Your task to perform on an android device: Check the news Image 0: 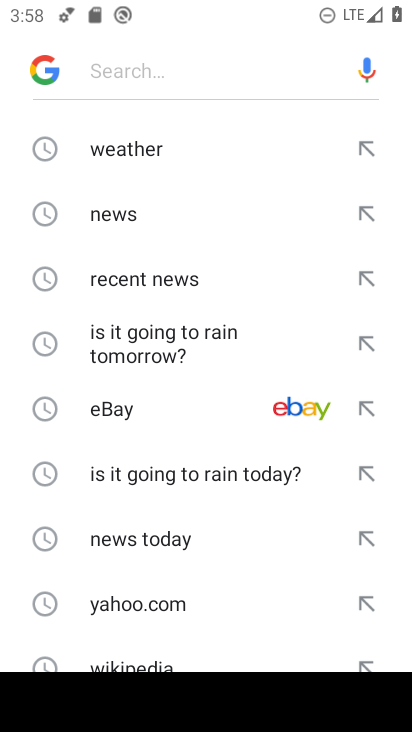
Step 0: press home button
Your task to perform on an android device: Check the news Image 1: 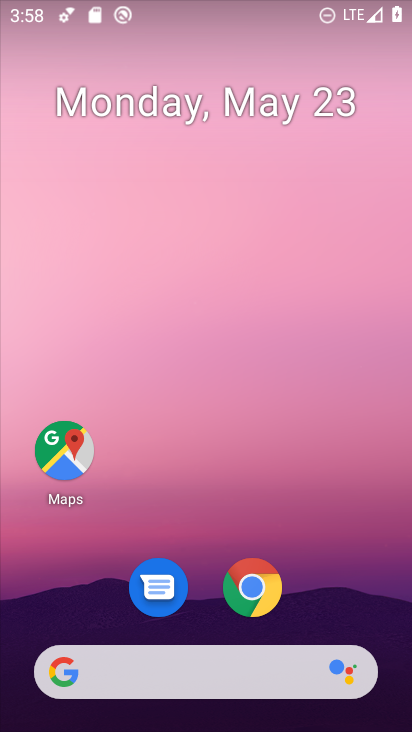
Step 1: drag from (210, 596) to (185, 5)
Your task to perform on an android device: Check the news Image 2: 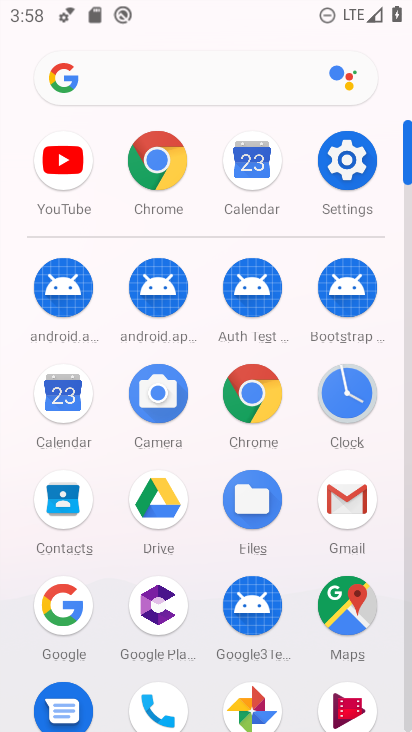
Step 2: click (226, 80)
Your task to perform on an android device: Check the news Image 3: 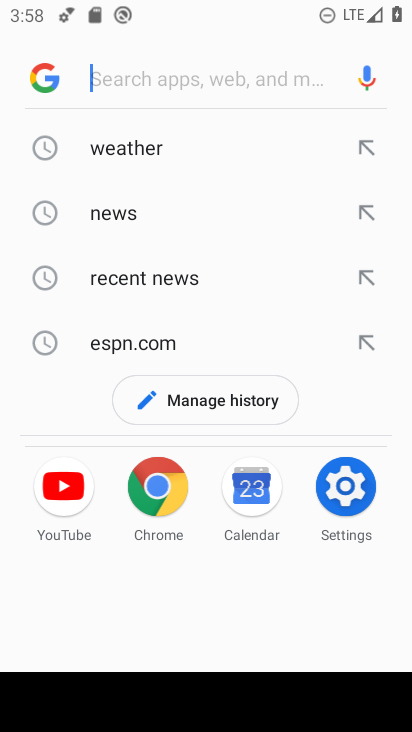
Step 3: click (156, 223)
Your task to perform on an android device: Check the news Image 4: 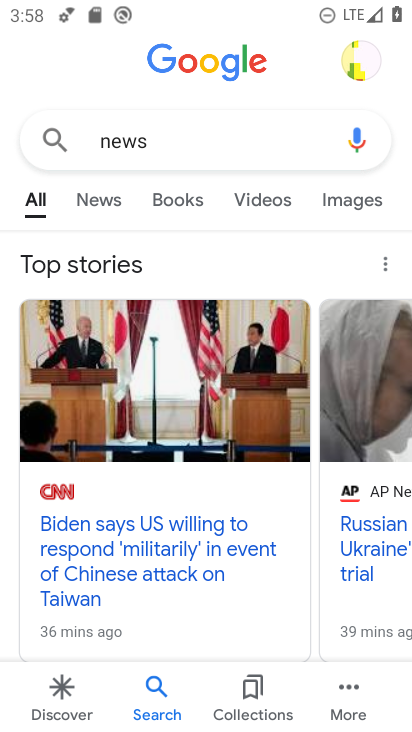
Step 4: task complete